Your task to perform on an android device: Open calendar and show me the fourth week of next month Image 0: 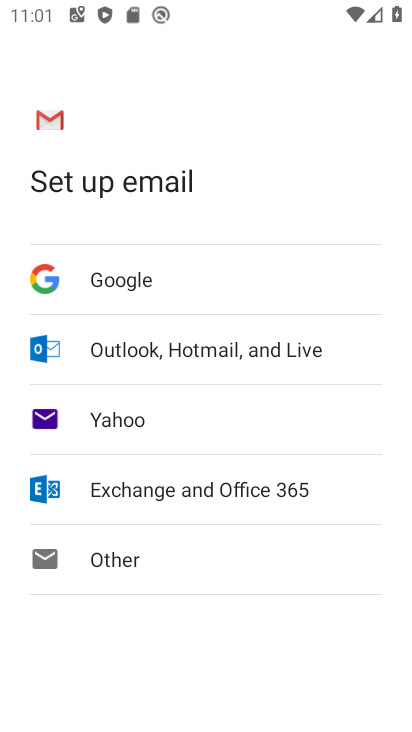
Step 0: press back button
Your task to perform on an android device: Open calendar and show me the fourth week of next month Image 1: 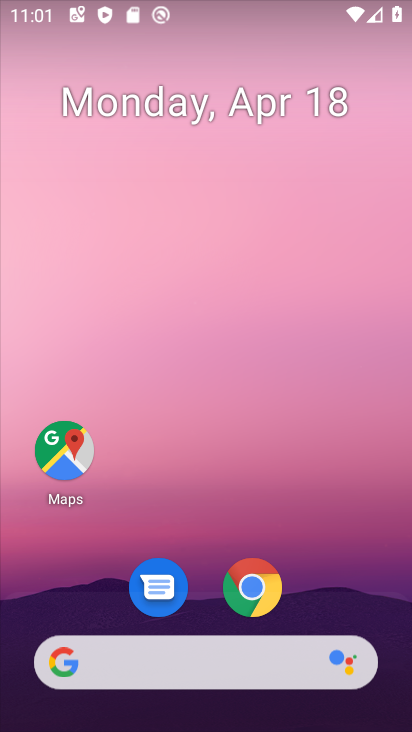
Step 1: drag from (88, 583) to (276, 72)
Your task to perform on an android device: Open calendar and show me the fourth week of next month Image 2: 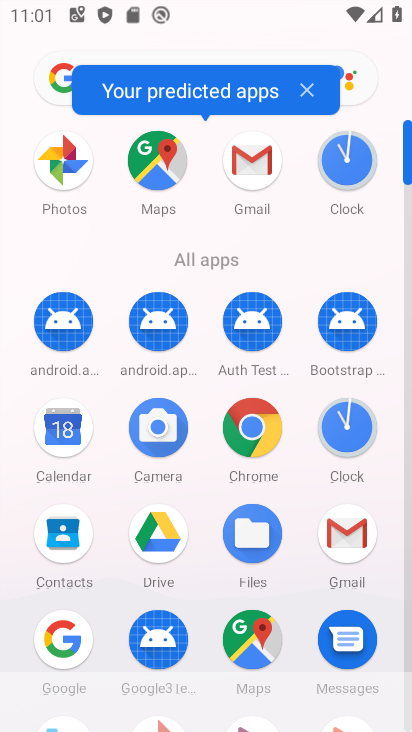
Step 2: click (61, 429)
Your task to perform on an android device: Open calendar and show me the fourth week of next month Image 3: 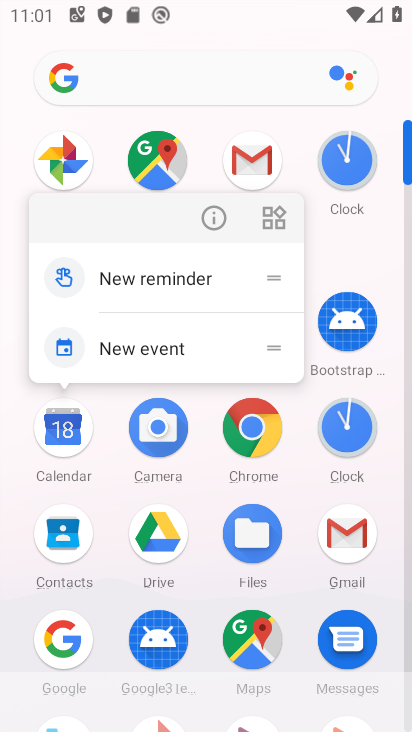
Step 3: click (61, 429)
Your task to perform on an android device: Open calendar and show me the fourth week of next month Image 4: 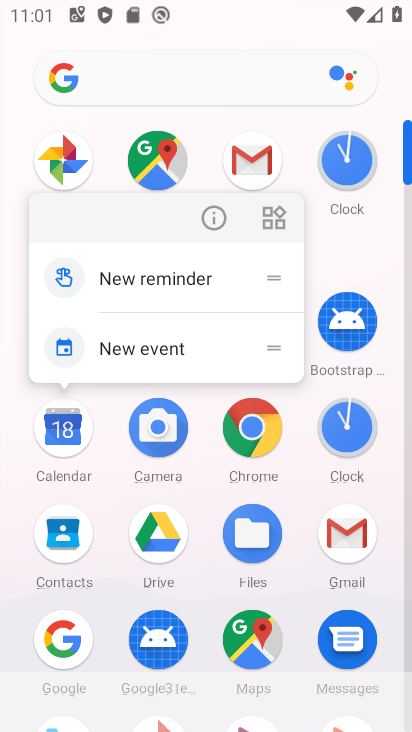
Step 4: click (68, 435)
Your task to perform on an android device: Open calendar and show me the fourth week of next month Image 5: 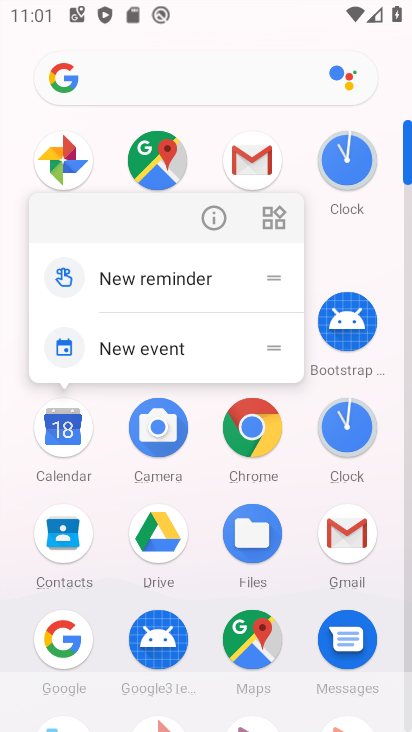
Step 5: click (69, 433)
Your task to perform on an android device: Open calendar and show me the fourth week of next month Image 6: 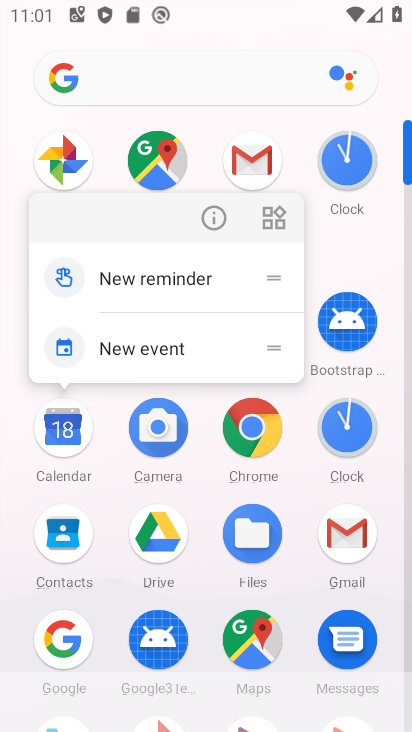
Step 6: click (69, 431)
Your task to perform on an android device: Open calendar and show me the fourth week of next month Image 7: 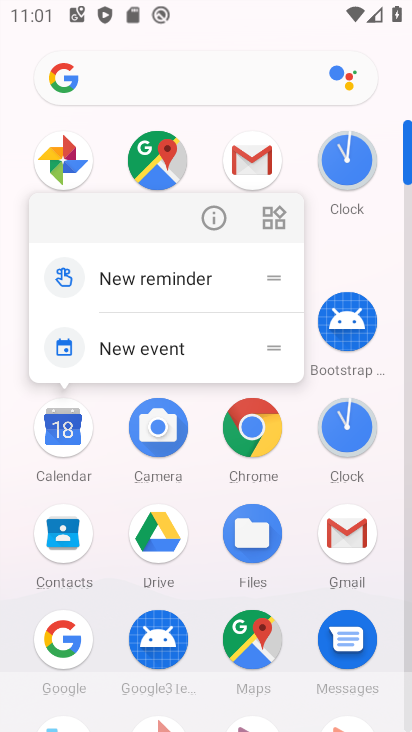
Step 7: click (92, 424)
Your task to perform on an android device: Open calendar and show me the fourth week of next month Image 8: 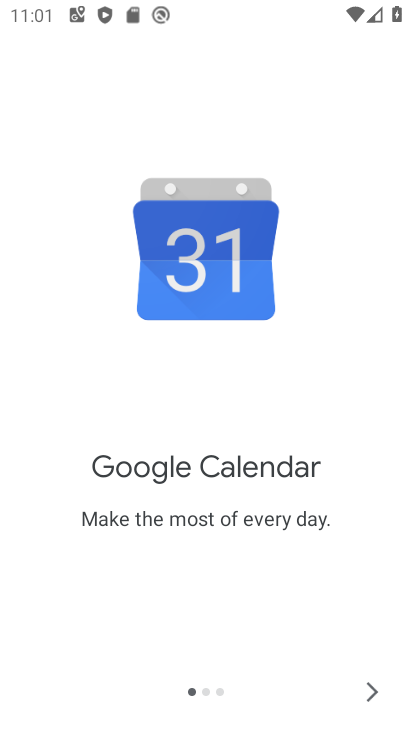
Step 8: click (378, 684)
Your task to perform on an android device: Open calendar and show me the fourth week of next month Image 9: 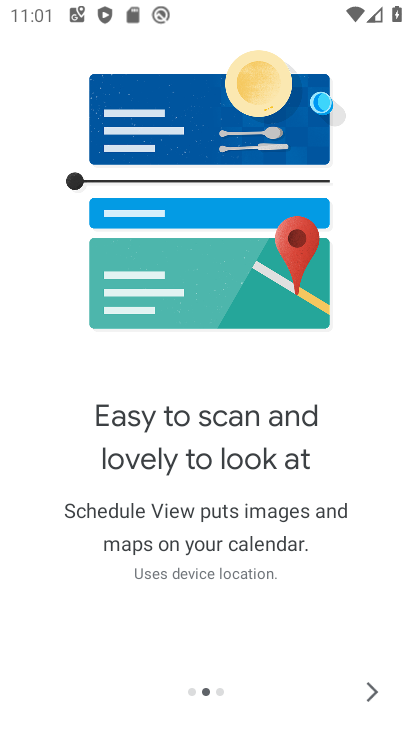
Step 9: click (382, 697)
Your task to perform on an android device: Open calendar and show me the fourth week of next month Image 10: 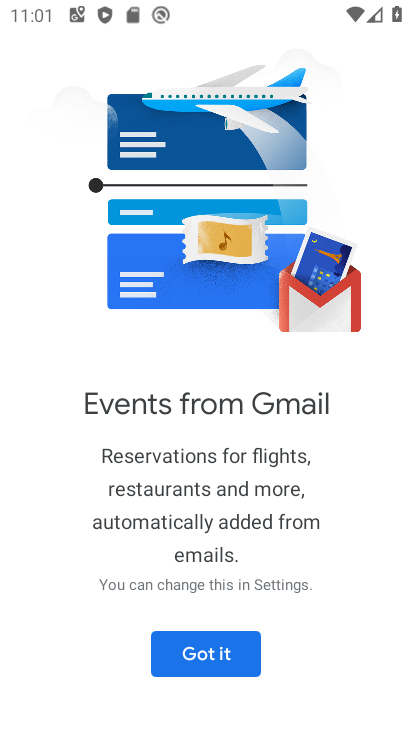
Step 10: click (213, 643)
Your task to perform on an android device: Open calendar and show me the fourth week of next month Image 11: 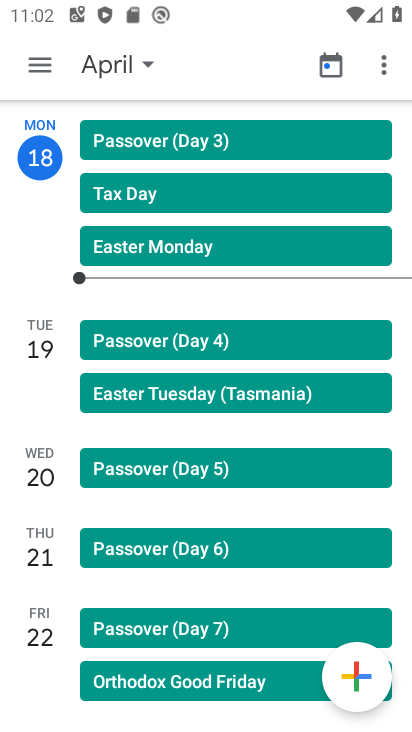
Step 11: click (119, 74)
Your task to perform on an android device: Open calendar and show me the fourth week of next month Image 12: 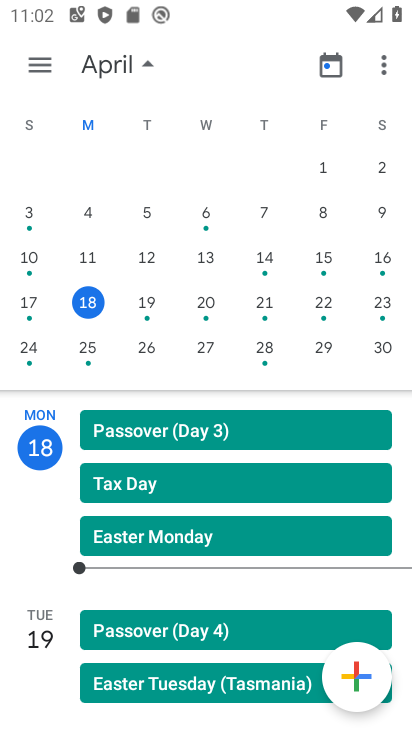
Step 12: drag from (365, 307) to (2, 295)
Your task to perform on an android device: Open calendar and show me the fourth week of next month Image 13: 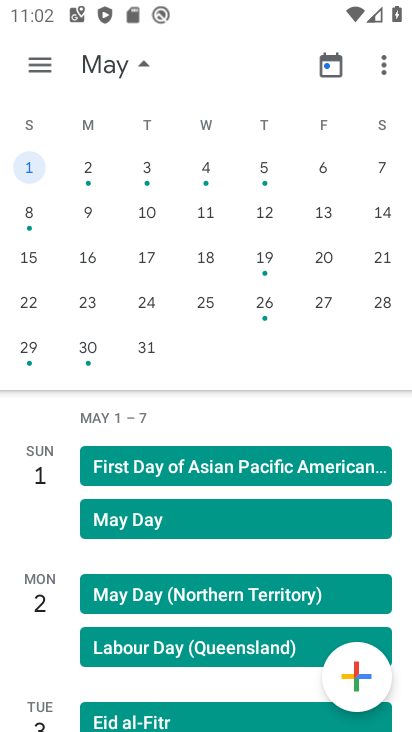
Step 13: click (41, 302)
Your task to perform on an android device: Open calendar and show me the fourth week of next month Image 14: 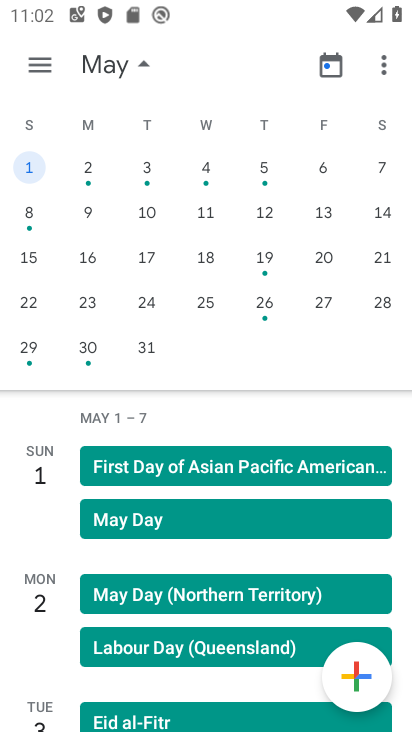
Step 14: click (27, 302)
Your task to perform on an android device: Open calendar and show me the fourth week of next month Image 15: 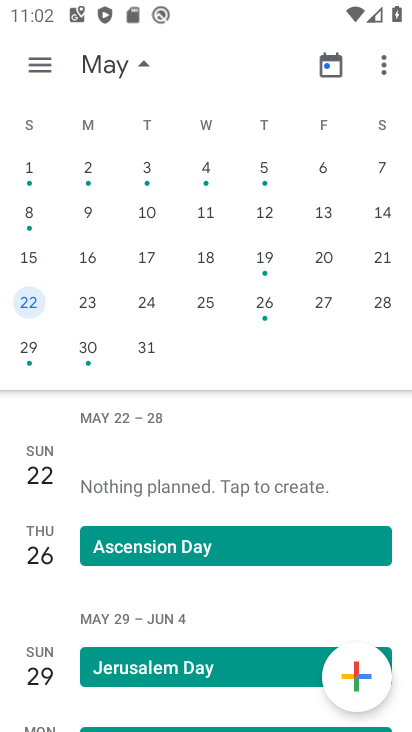
Step 15: click (151, 59)
Your task to perform on an android device: Open calendar and show me the fourth week of next month Image 16: 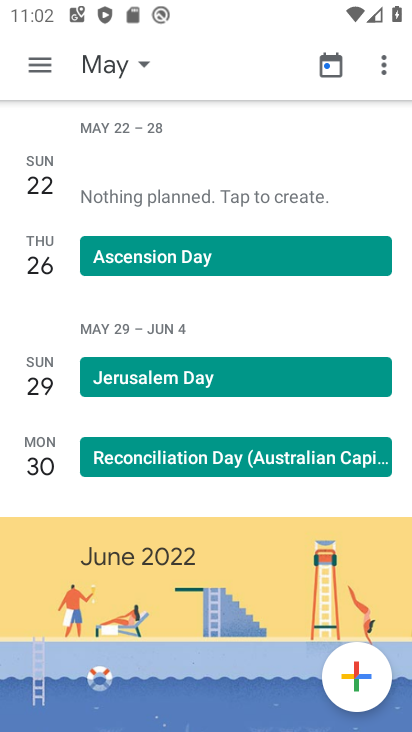
Step 16: click (45, 65)
Your task to perform on an android device: Open calendar and show me the fourth week of next month Image 17: 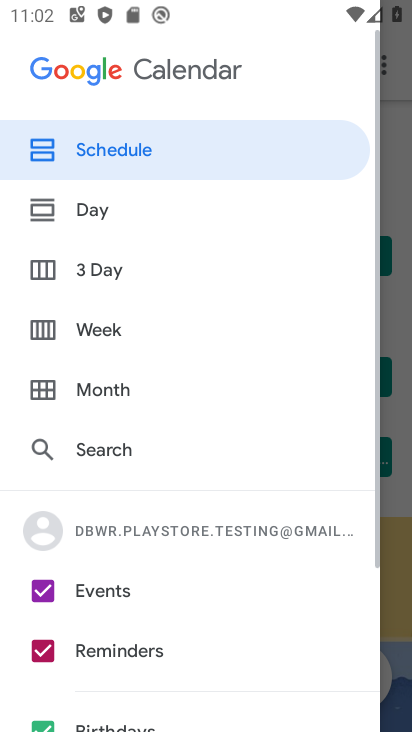
Step 17: click (100, 335)
Your task to perform on an android device: Open calendar and show me the fourth week of next month Image 18: 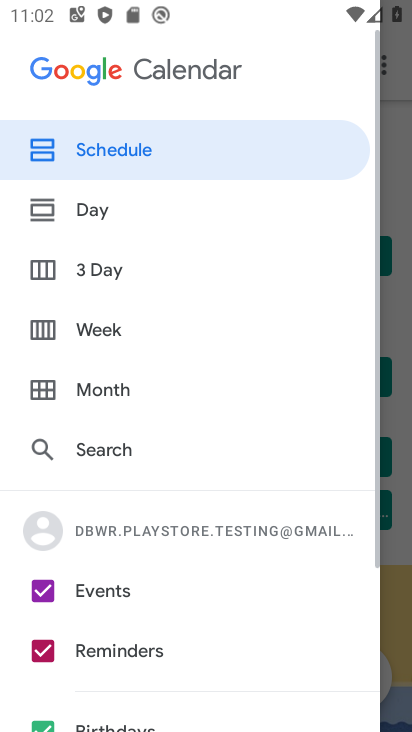
Step 18: click (111, 328)
Your task to perform on an android device: Open calendar and show me the fourth week of next month Image 19: 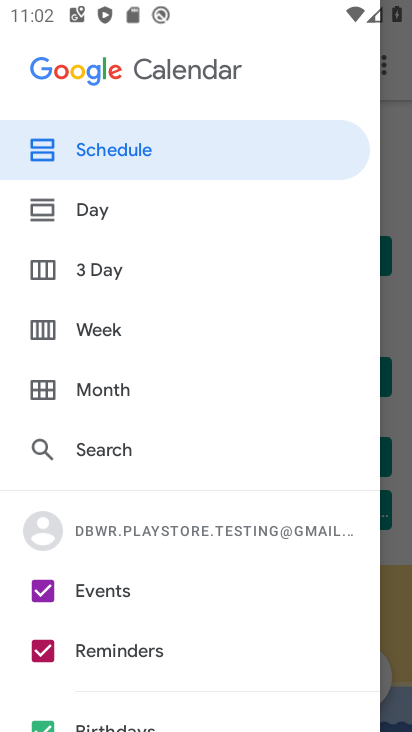
Step 19: click (145, 332)
Your task to perform on an android device: Open calendar and show me the fourth week of next month Image 20: 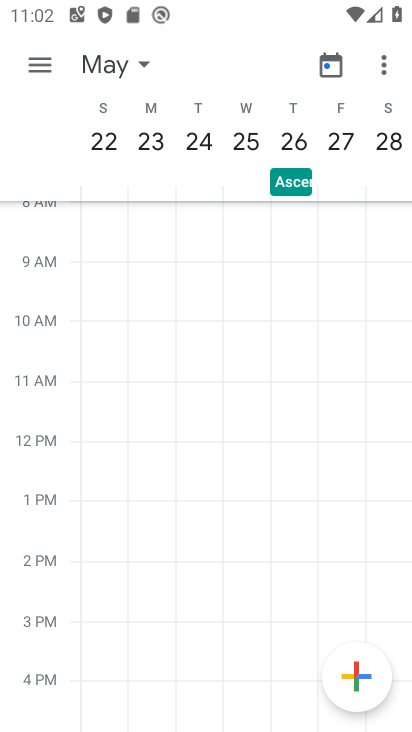
Step 20: task complete